Your task to perform on an android device: Go to notification settings Image 0: 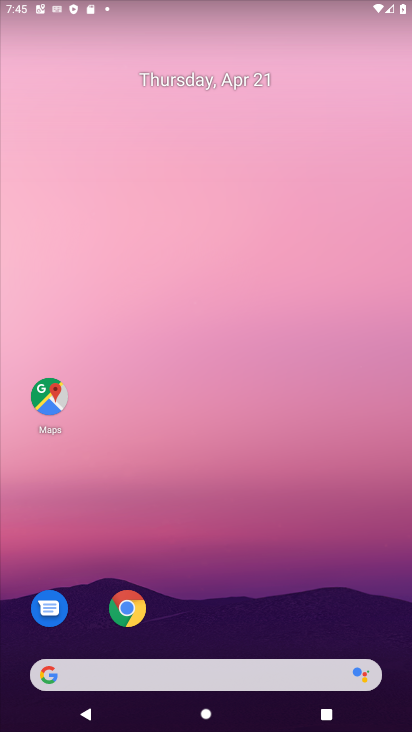
Step 0: click (274, 600)
Your task to perform on an android device: Go to notification settings Image 1: 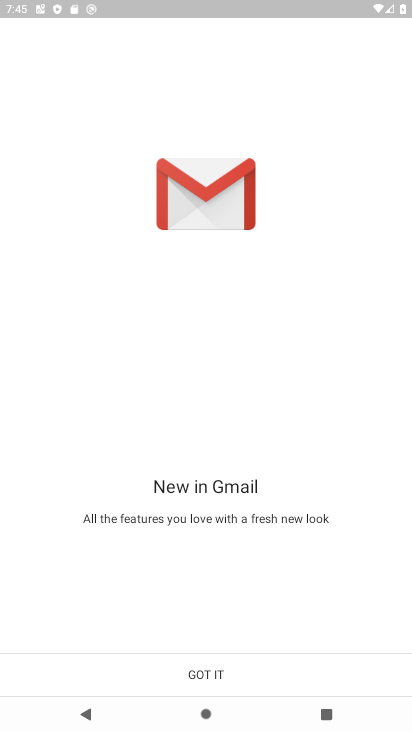
Step 1: press home button
Your task to perform on an android device: Go to notification settings Image 2: 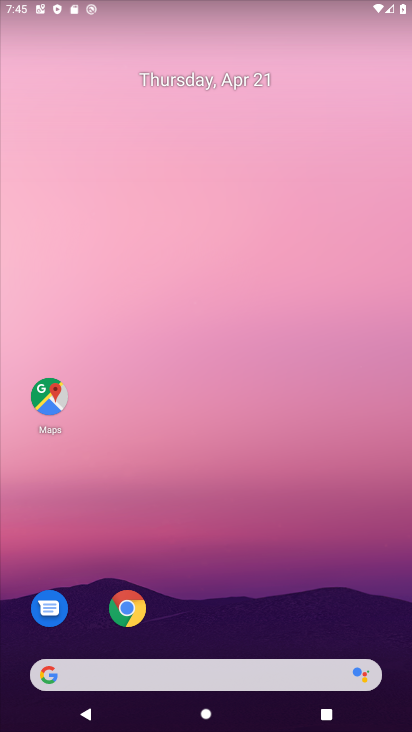
Step 2: drag from (192, 624) to (190, 112)
Your task to perform on an android device: Go to notification settings Image 3: 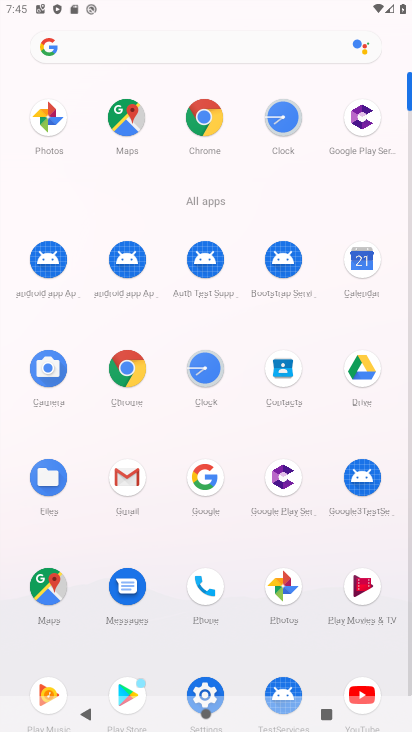
Step 3: drag from (215, 662) to (218, 387)
Your task to perform on an android device: Go to notification settings Image 4: 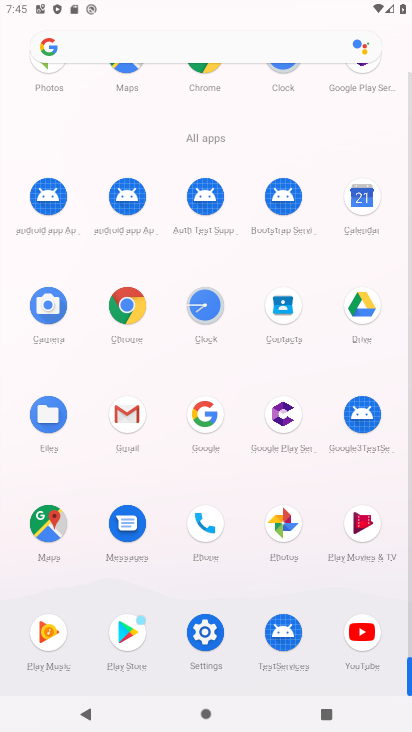
Step 4: click (208, 637)
Your task to perform on an android device: Go to notification settings Image 5: 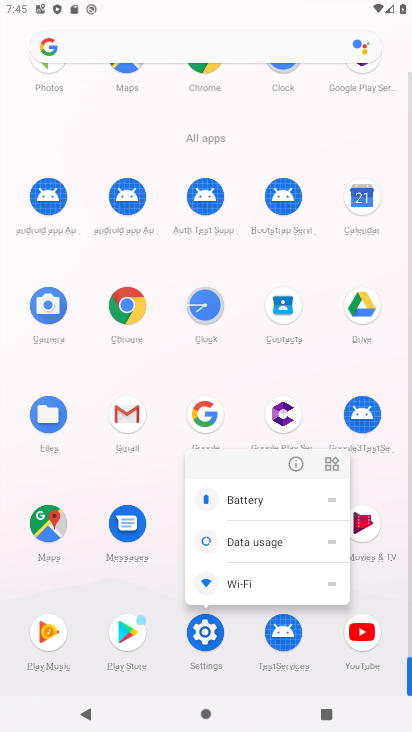
Step 5: click (208, 637)
Your task to perform on an android device: Go to notification settings Image 6: 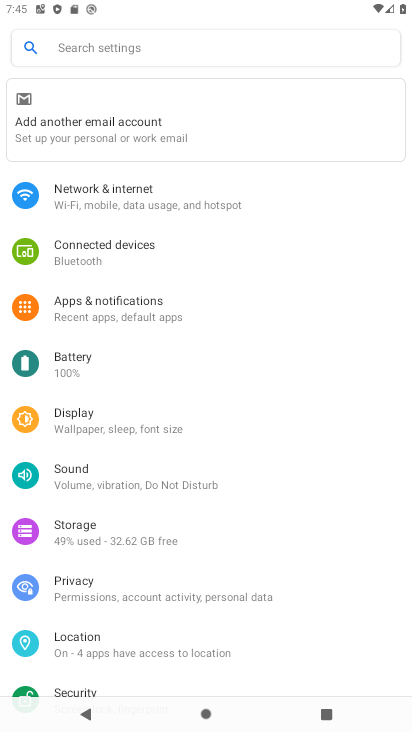
Step 6: click (118, 312)
Your task to perform on an android device: Go to notification settings Image 7: 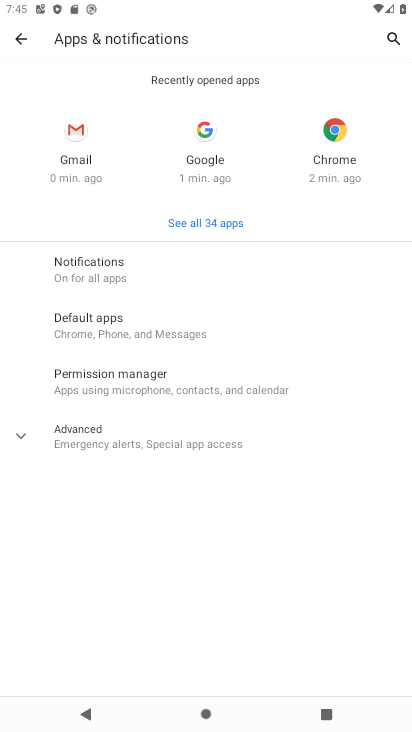
Step 7: click (82, 268)
Your task to perform on an android device: Go to notification settings Image 8: 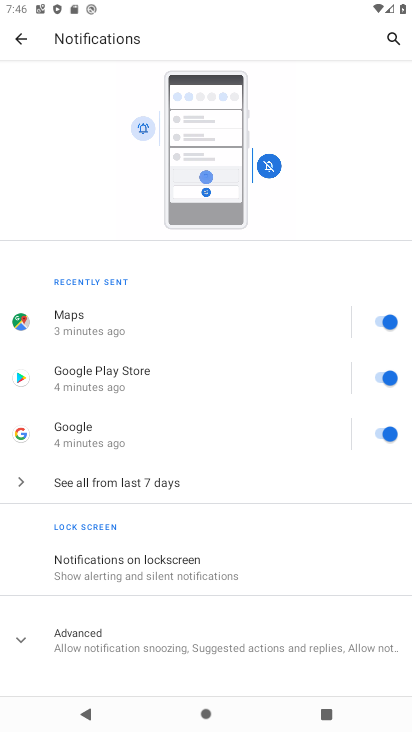
Step 8: task complete